Your task to perform on an android device: turn on wifi Image 0: 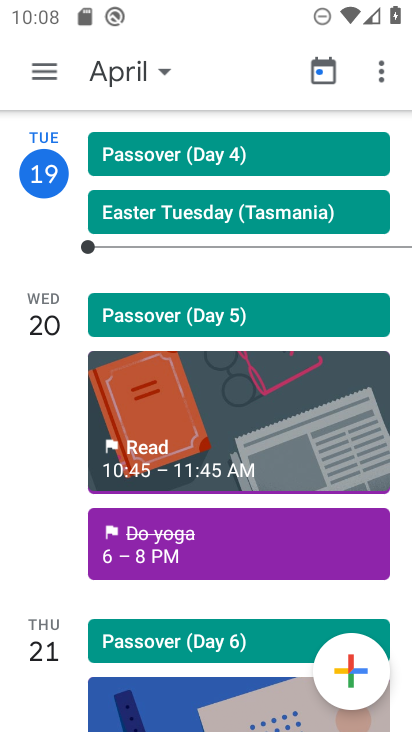
Step 0: press back button
Your task to perform on an android device: turn on wifi Image 1: 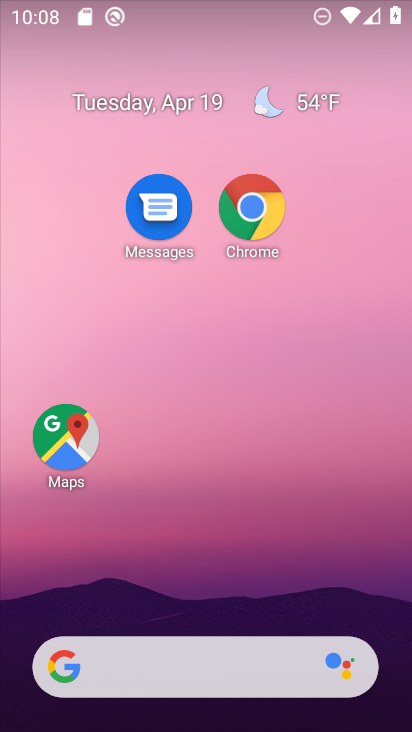
Step 1: drag from (232, 436) to (214, 287)
Your task to perform on an android device: turn on wifi Image 2: 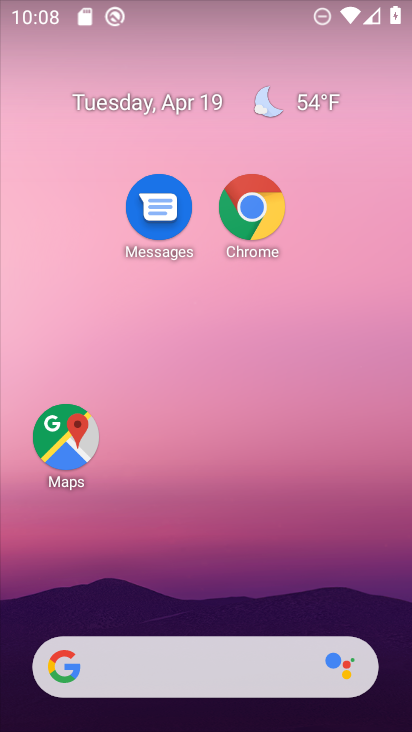
Step 2: drag from (222, 636) to (196, 144)
Your task to perform on an android device: turn on wifi Image 3: 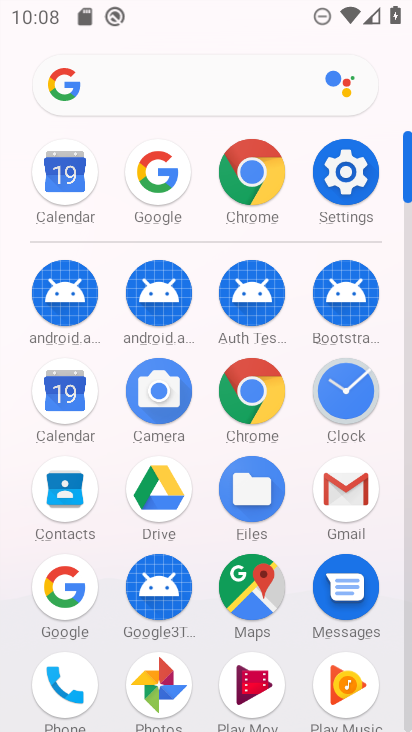
Step 3: click (339, 171)
Your task to perform on an android device: turn on wifi Image 4: 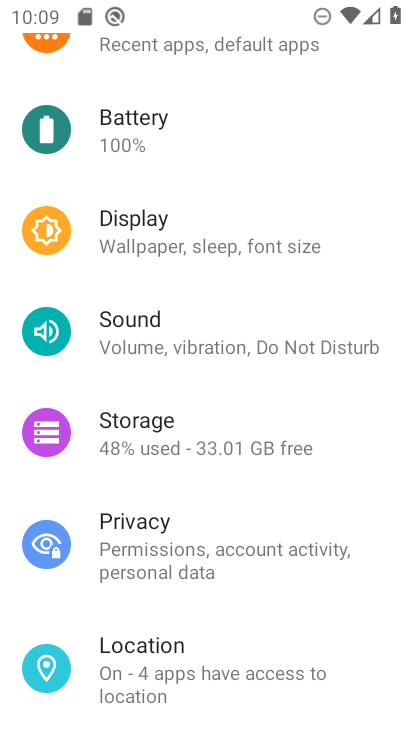
Step 4: drag from (232, 96) to (241, 567)
Your task to perform on an android device: turn on wifi Image 5: 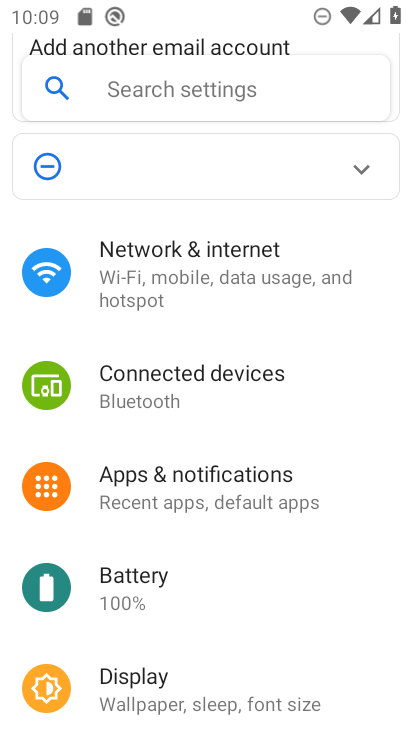
Step 5: click (247, 268)
Your task to perform on an android device: turn on wifi Image 6: 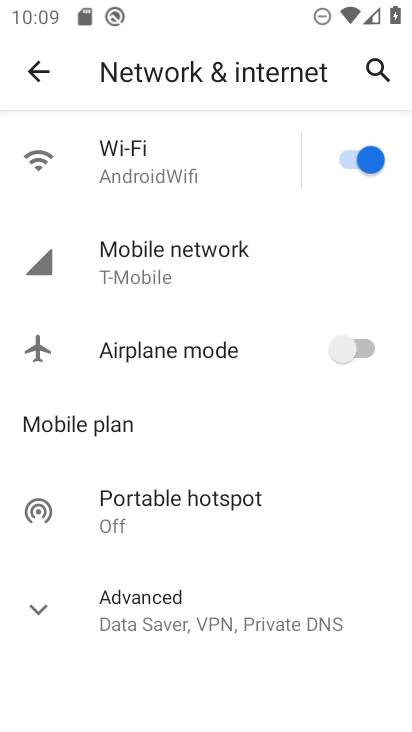
Step 6: task complete